Your task to perform on an android device: Go to accessibility settings Image 0: 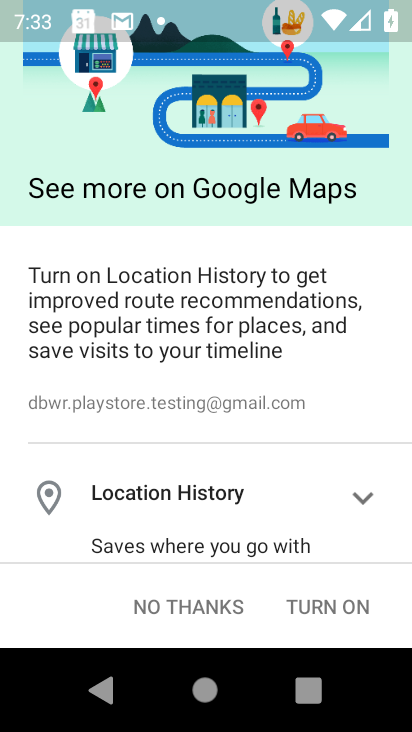
Step 0: press home button
Your task to perform on an android device: Go to accessibility settings Image 1: 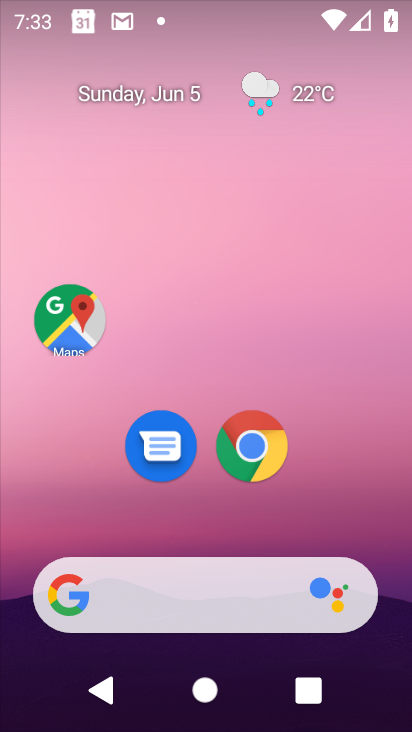
Step 1: drag from (198, 516) to (376, 101)
Your task to perform on an android device: Go to accessibility settings Image 2: 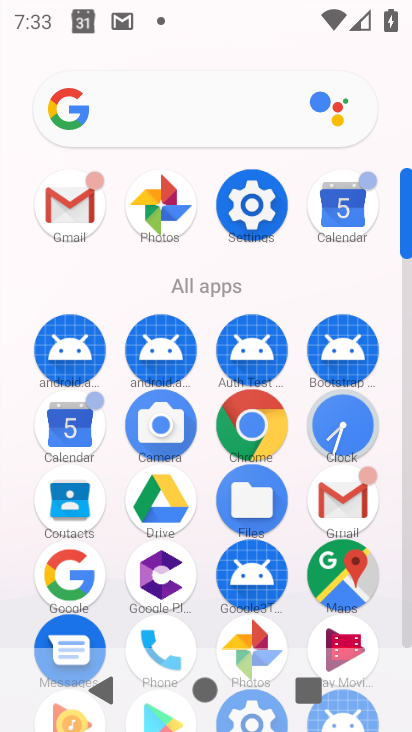
Step 2: click (255, 204)
Your task to perform on an android device: Go to accessibility settings Image 3: 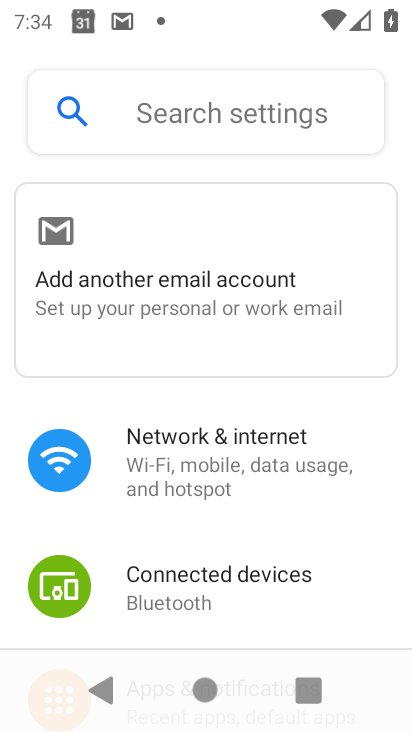
Step 3: drag from (232, 497) to (302, 119)
Your task to perform on an android device: Go to accessibility settings Image 4: 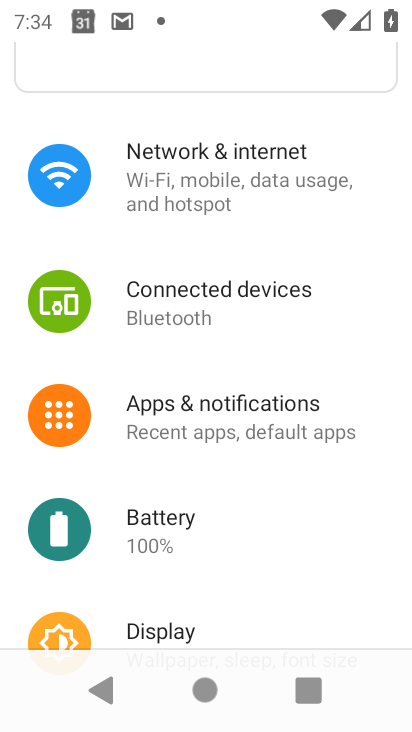
Step 4: drag from (237, 552) to (329, 221)
Your task to perform on an android device: Go to accessibility settings Image 5: 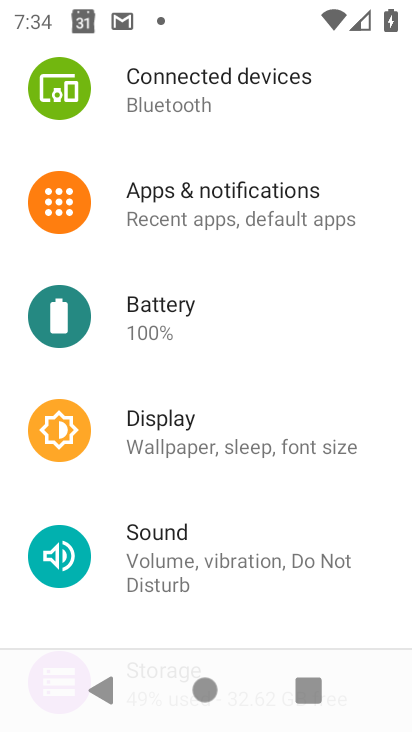
Step 5: drag from (182, 571) to (301, 341)
Your task to perform on an android device: Go to accessibility settings Image 6: 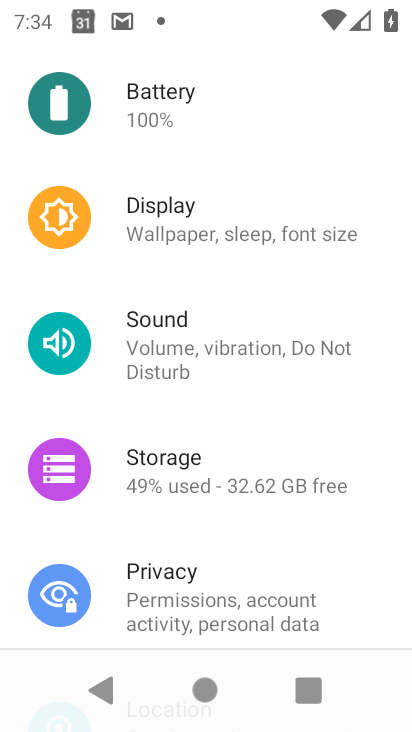
Step 6: drag from (246, 574) to (327, 254)
Your task to perform on an android device: Go to accessibility settings Image 7: 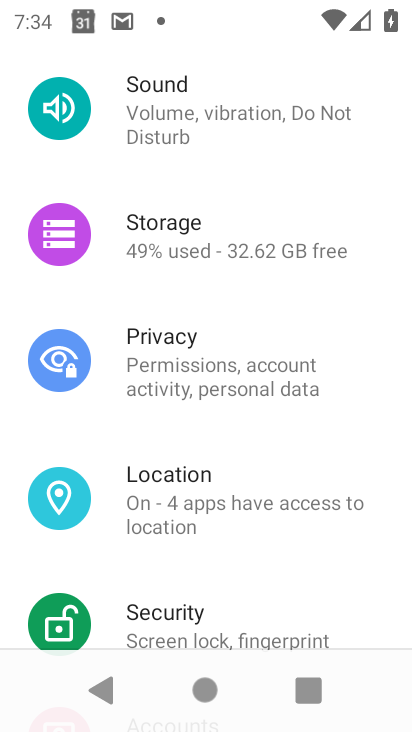
Step 7: drag from (236, 540) to (314, 296)
Your task to perform on an android device: Go to accessibility settings Image 8: 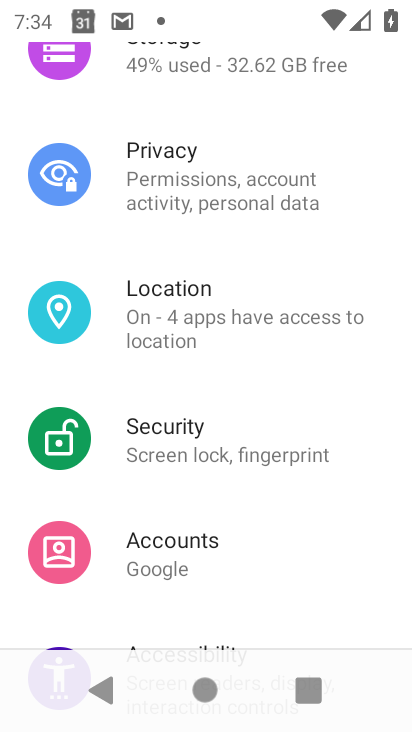
Step 8: drag from (243, 593) to (356, 298)
Your task to perform on an android device: Go to accessibility settings Image 9: 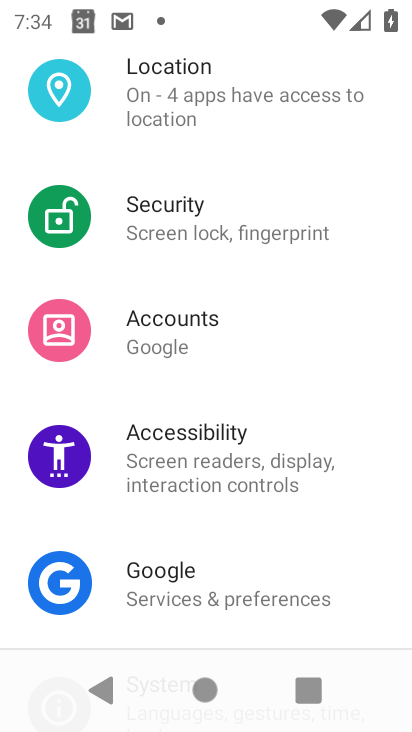
Step 9: click (221, 447)
Your task to perform on an android device: Go to accessibility settings Image 10: 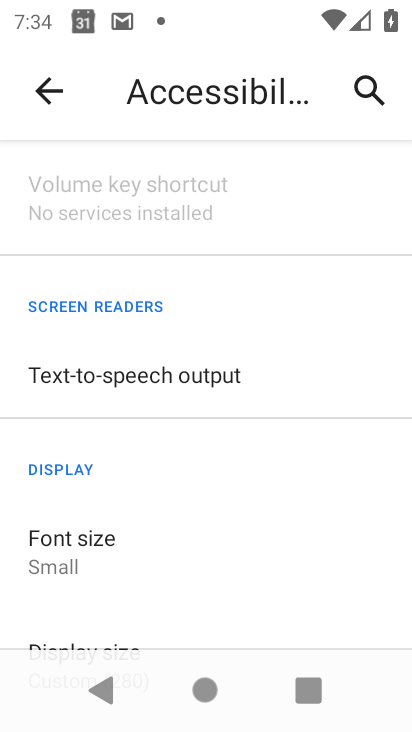
Step 10: task complete